Your task to perform on an android device: Go to Maps Image 0: 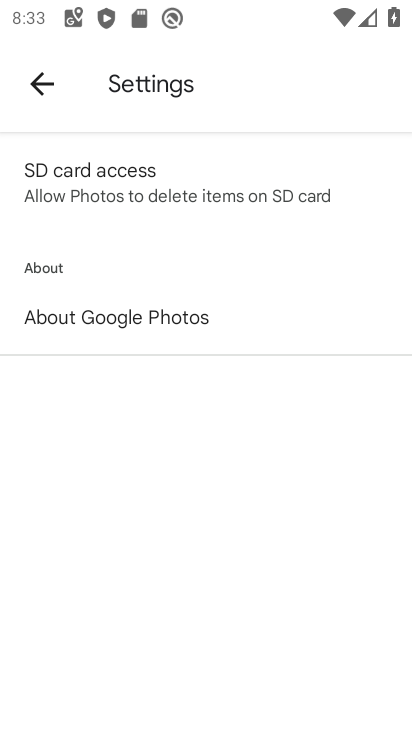
Step 0: press home button
Your task to perform on an android device: Go to Maps Image 1: 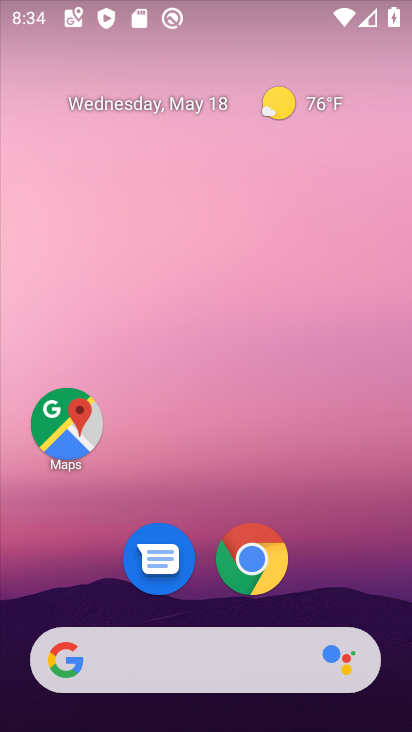
Step 1: click (73, 434)
Your task to perform on an android device: Go to Maps Image 2: 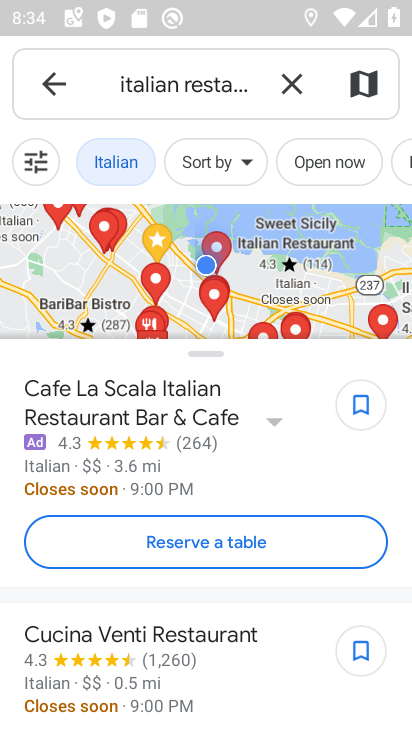
Step 2: task complete